Your task to perform on an android device: refresh tabs in the chrome app Image 0: 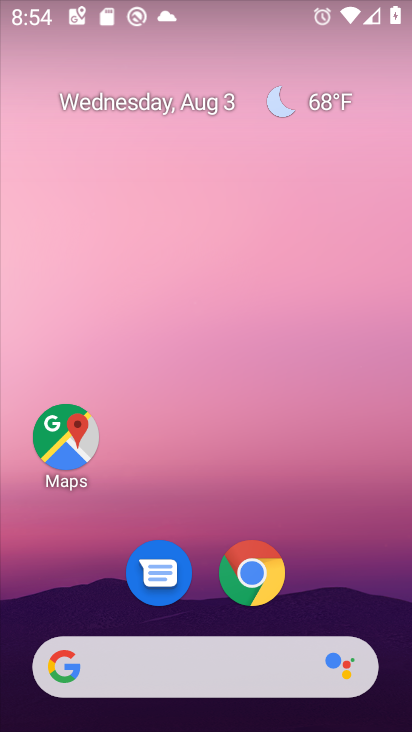
Step 0: click (261, 577)
Your task to perform on an android device: refresh tabs in the chrome app Image 1: 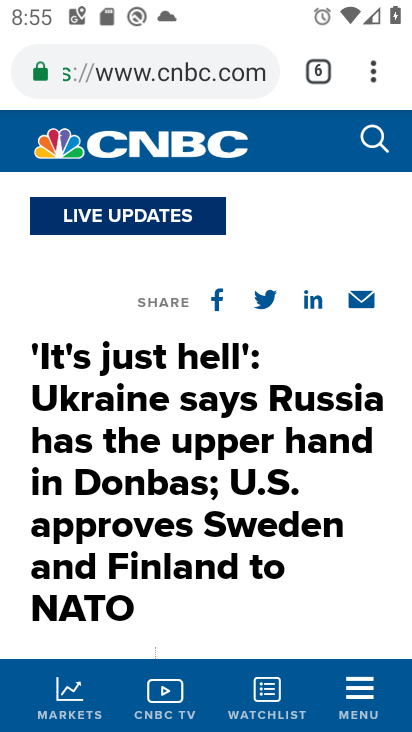
Step 1: press home button
Your task to perform on an android device: refresh tabs in the chrome app Image 2: 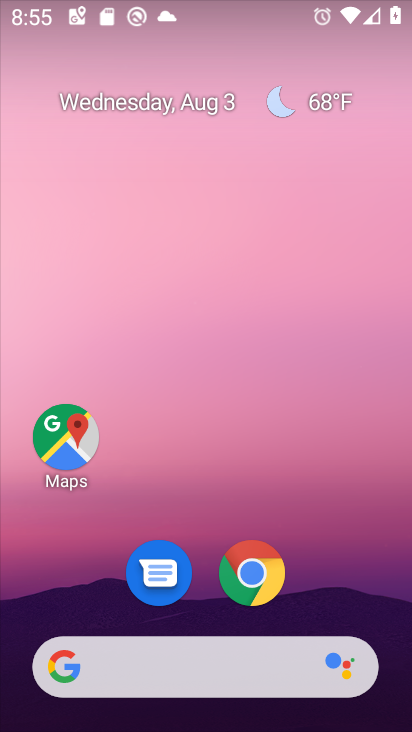
Step 2: click (257, 578)
Your task to perform on an android device: refresh tabs in the chrome app Image 3: 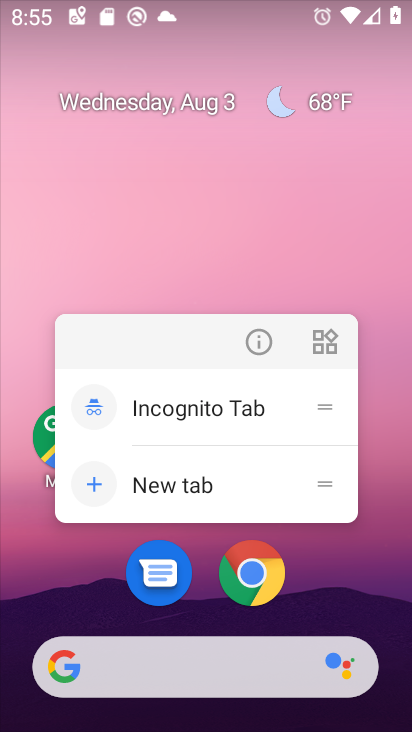
Step 3: click (260, 568)
Your task to perform on an android device: refresh tabs in the chrome app Image 4: 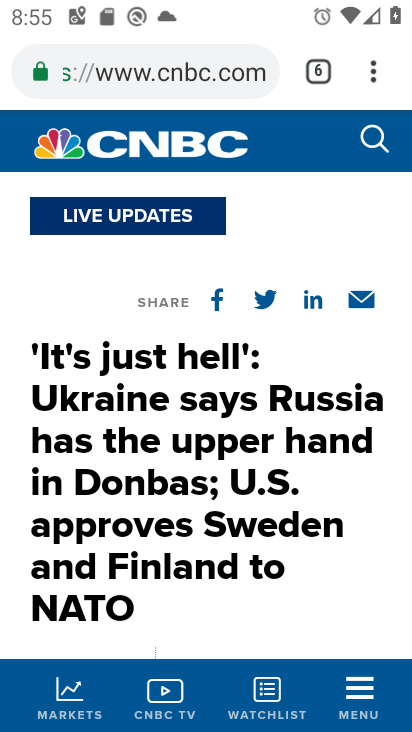
Step 4: click (377, 78)
Your task to perform on an android device: refresh tabs in the chrome app Image 5: 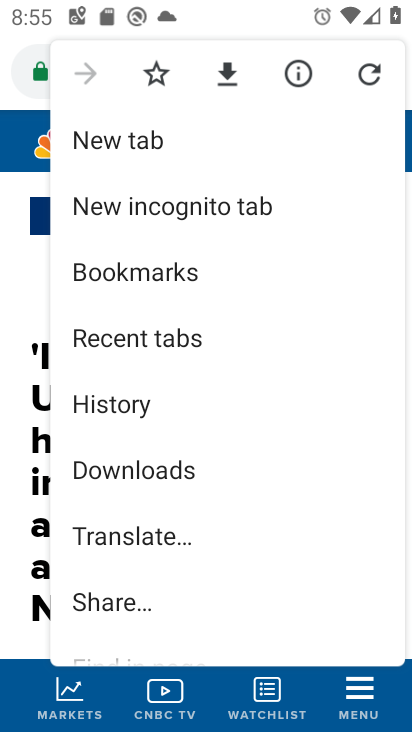
Step 5: click (373, 69)
Your task to perform on an android device: refresh tabs in the chrome app Image 6: 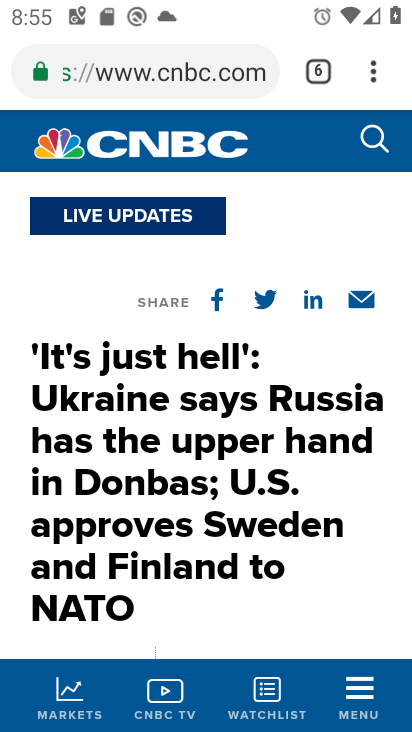
Step 6: task complete